Your task to perform on an android device: Do I have any events today? Image 0: 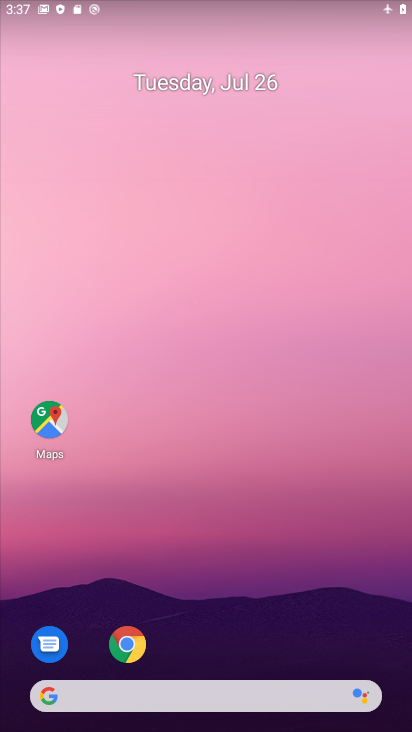
Step 0: drag from (375, 651) to (340, 227)
Your task to perform on an android device: Do I have any events today? Image 1: 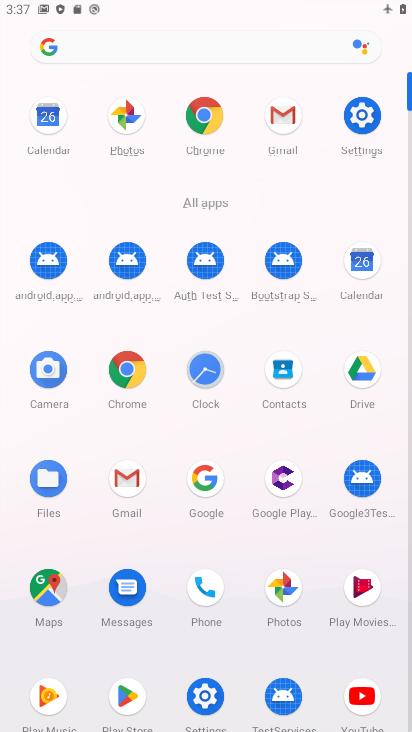
Step 1: click (368, 263)
Your task to perform on an android device: Do I have any events today? Image 2: 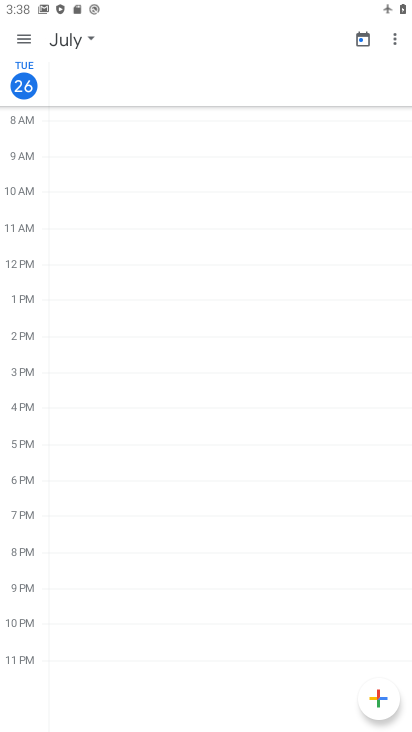
Step 2: task complete